Your task to perform on an android device: Where can I buy a nice beach blanket? Image 0: 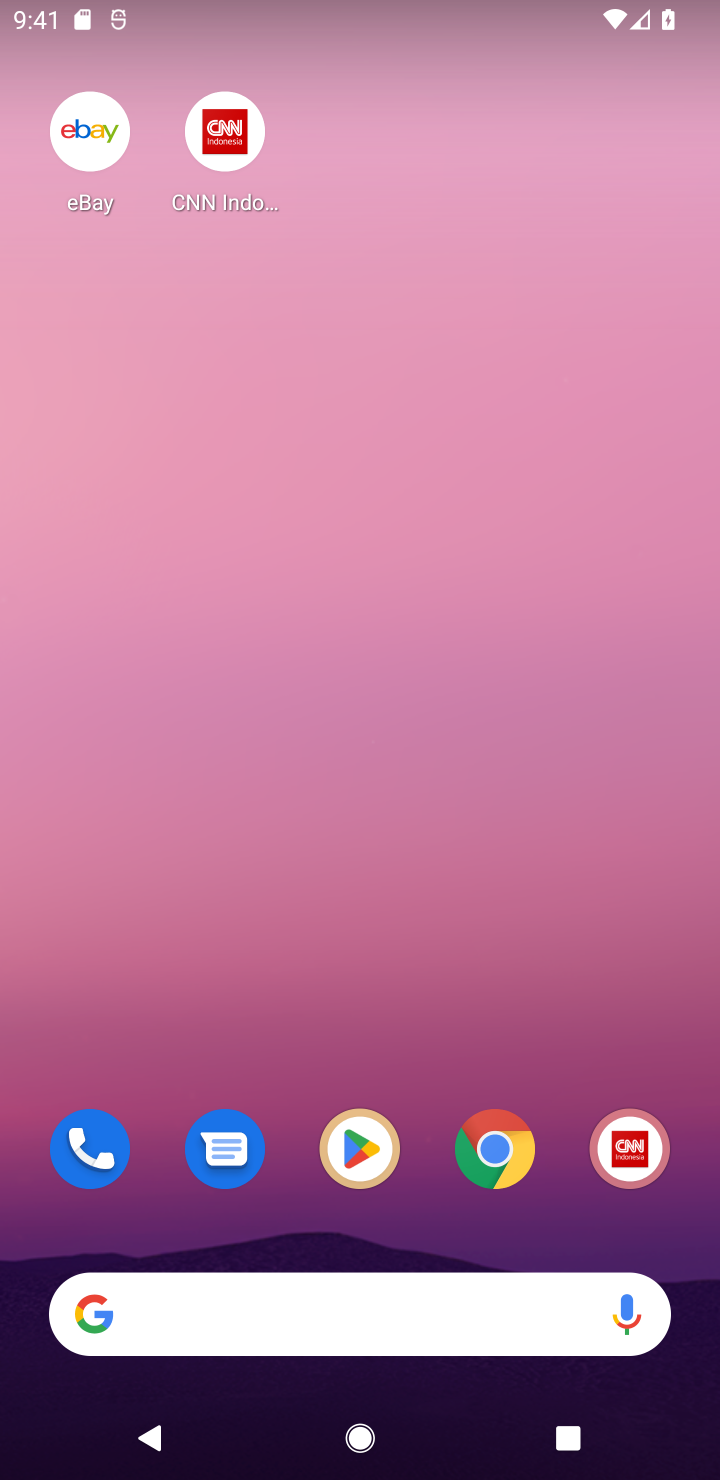
Step 0: drag from (302, 1226) to (133, 324)
Your task to perform on an android device: Where can I buy a nice beach blanket? Image 1: 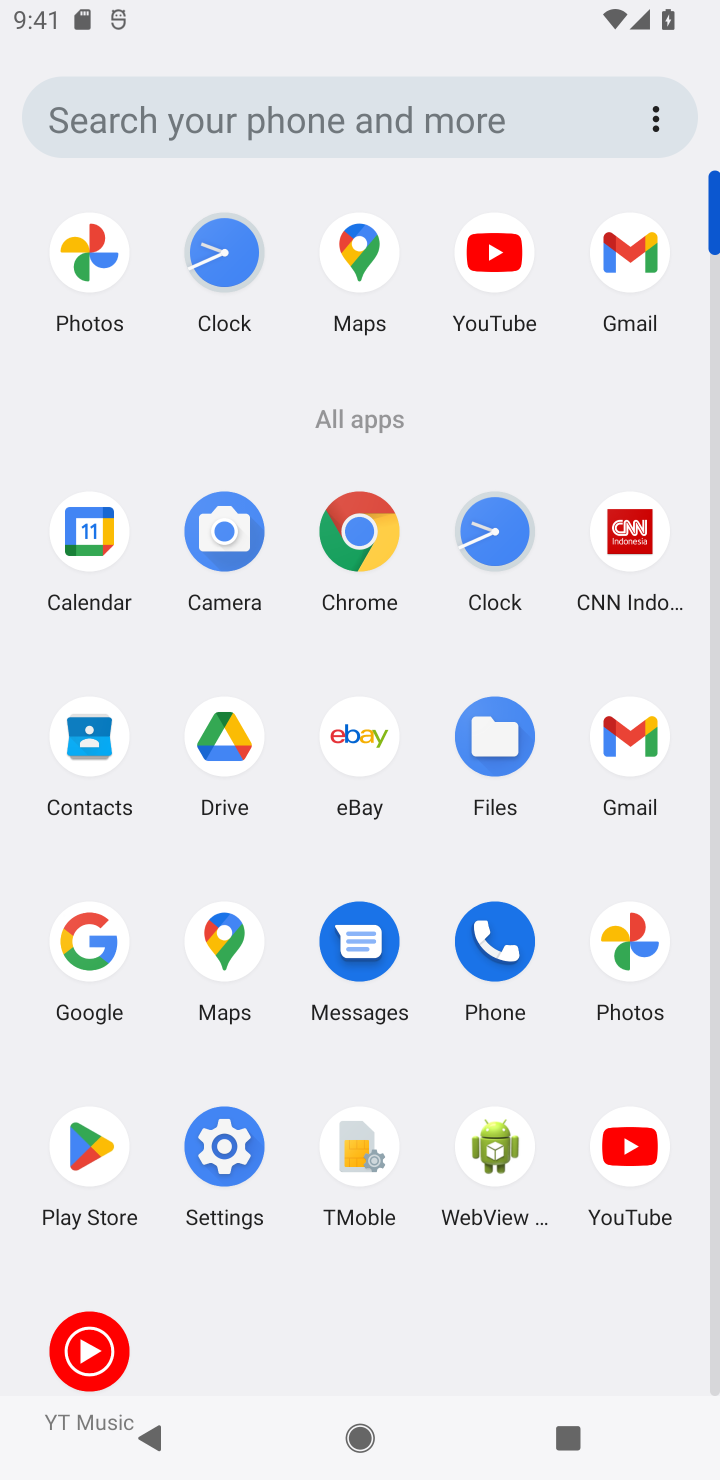
Step 1: click (88, 974)
Your task to perform on an android device: Where can I buy a nice beach blanket? Image 2: 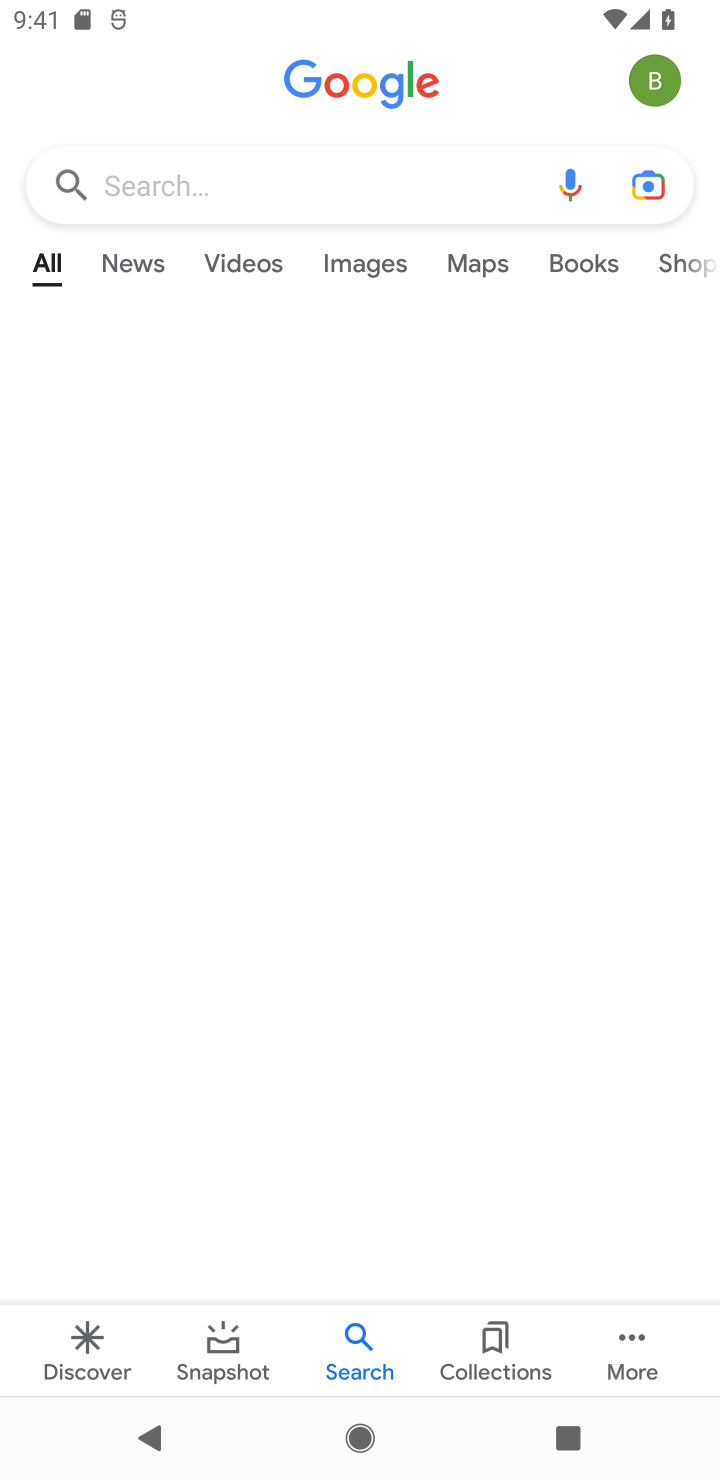
Step 2: click (186, 179)
Your task to perform on an android device: Where can I buy a nice beach blanket? Image 3: 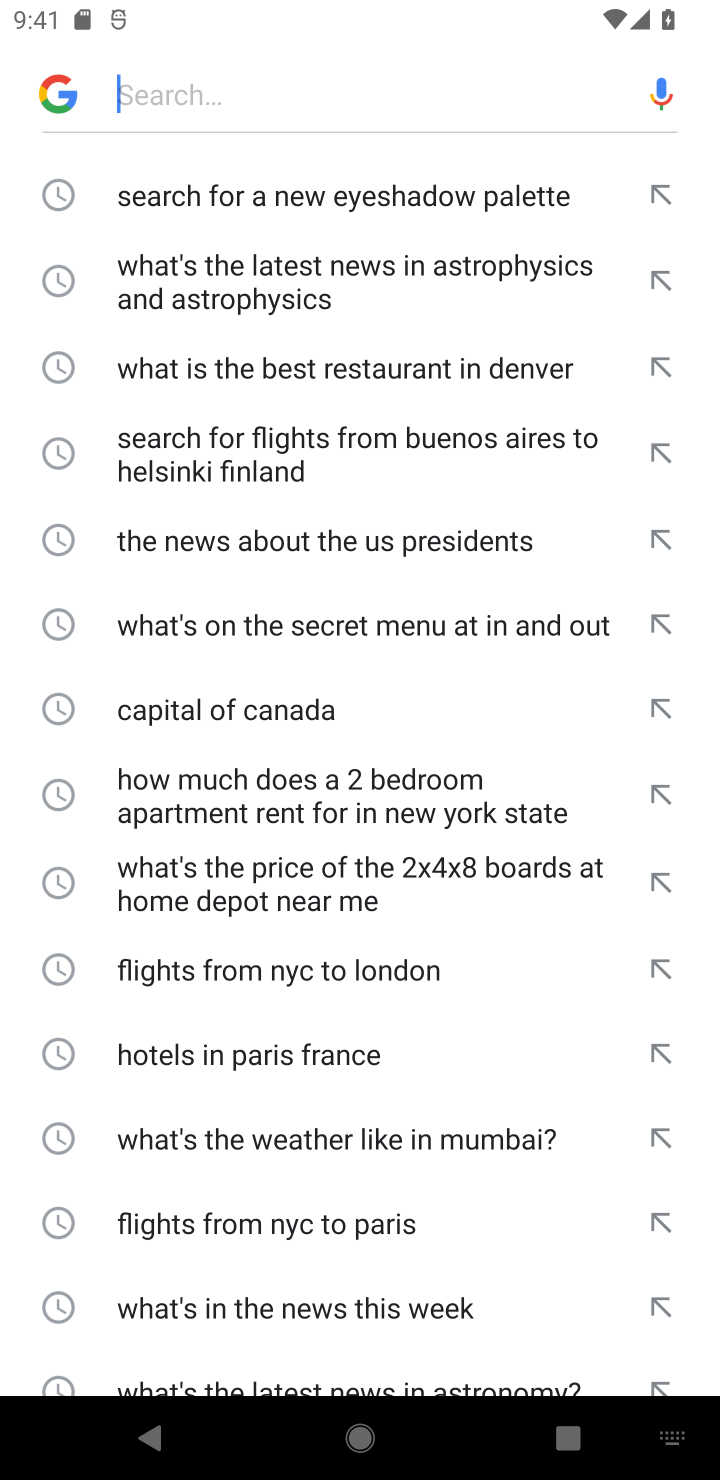
Step 3: type "Where can I buy a nice beach blanket?"
Your task to perform on an android device: Where can I buy a nice beach blanket? Image 4: 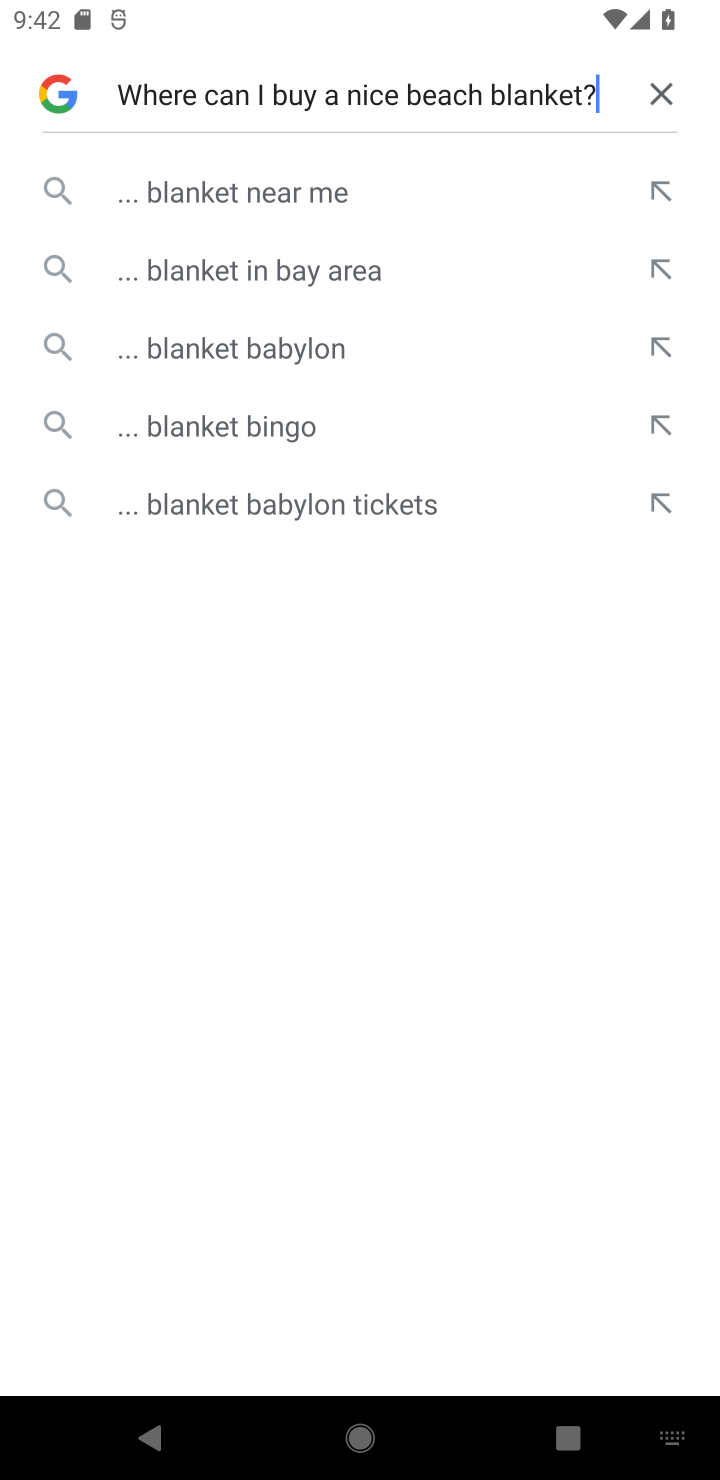
Step 4: click (249, 189)
Your task to perform on an android device: Where can I buy a nice beach blanket? Image 5: 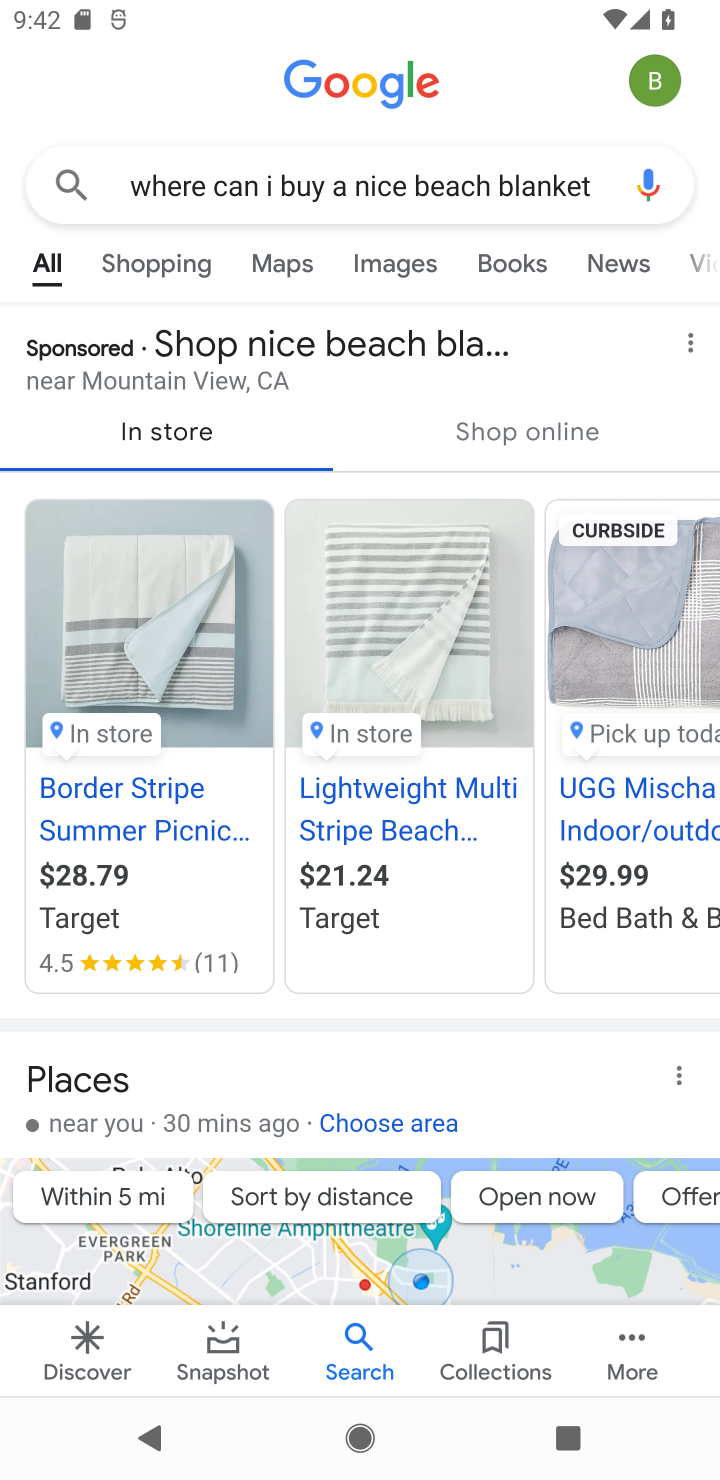
Step 5: task complete